Your task to perform on an android device: Search for the best rated 3d printer on Amazon. Image 0: 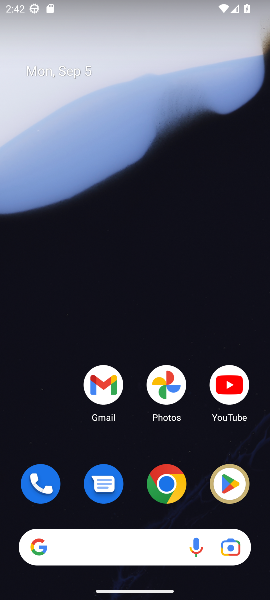
Step 0: click (173, 495)
Your task to perform on an android device: Search for the best rated 3d printer on Amazon. Image 1: 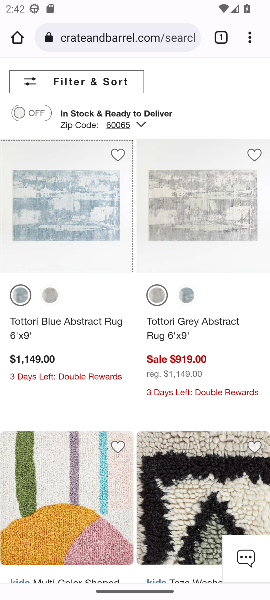
Step 1: click (163, 36)
Your task to perform on an android device: Search for the best rated 3d printer on Amazon. Image 2: 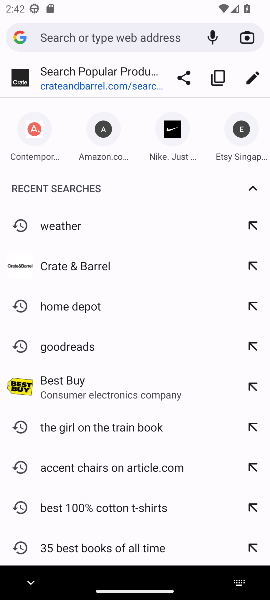
Step 2: type "Amazon"
Your task to perform on an android device: Search for the best rated 3d printer on Amazon. Image 3: 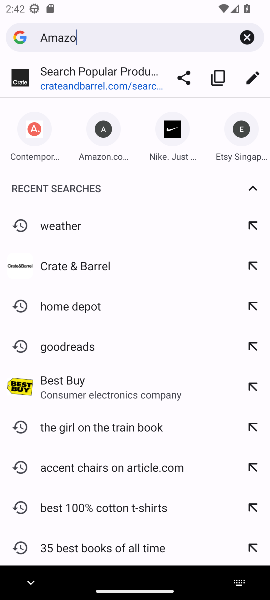
Step 3: press enter
Your task to perform on an android device: Search for the best rated 3d printer on Amazon. Image 4: 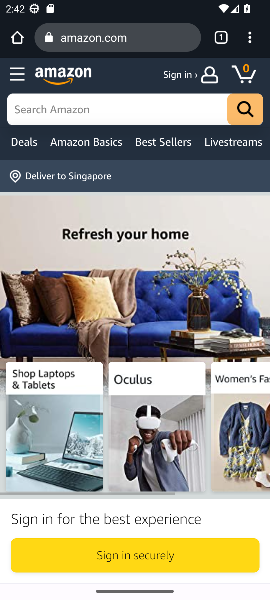
Step 4: click (146, 114)
Your task to perform on an android device: Search for the best rated 3d printer on Amazon. Image 5: 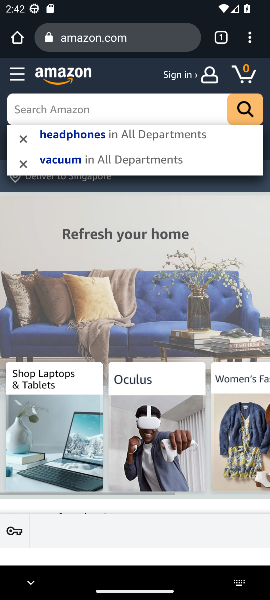
Step 5: press enter
Your task to perform on an android device: Search for the best rated 3d printer on Amazon. Image 6: 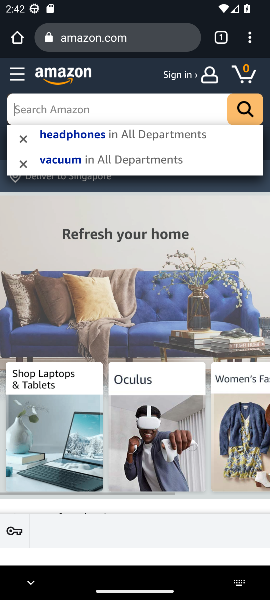
Step 6: type "3d printer"
Your task to perform on an android device: Search for the best rated 3d printer on Amazon. Image 7: 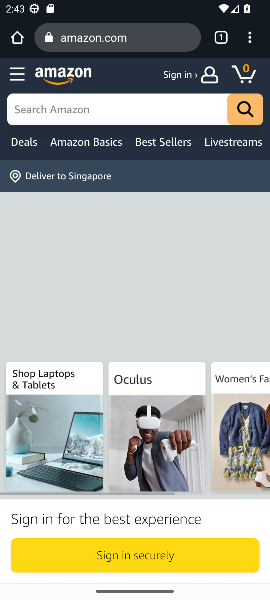
Step 7: drag from (105, 505) to (195, 208)
Your task to perform on an android device: Search for the best rated 3d printer on Amazon. Image 8: 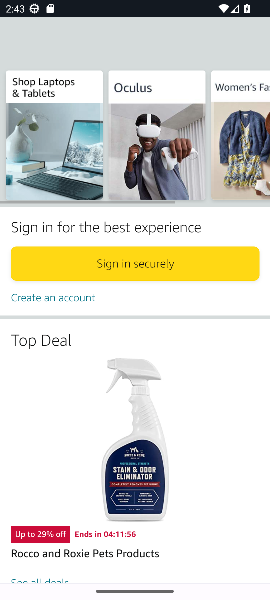
Step 8: drag from (140, 244) to (206, 489)
Your task to perform on an android device: Search for the best rated 3d printer on Amazon. Image 9: 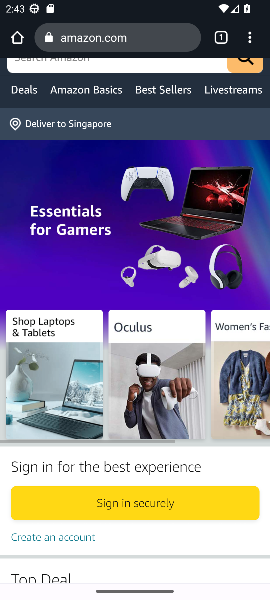
Step 9: drag from (155, 118) to (209, 379)
Your task to perform on an android device: Search for the best rated 3d printer on Amazon. Image 10: 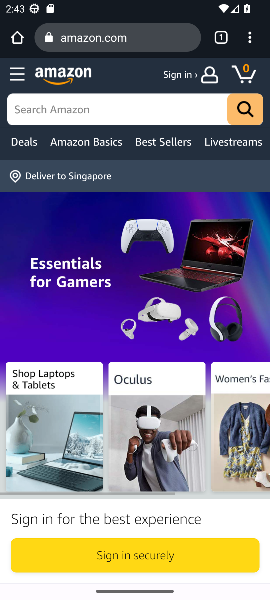
Step 10: click (124, 109)
Your task to perform on an android device: Search for the best rated 3d printer on Amazon. Image 11: 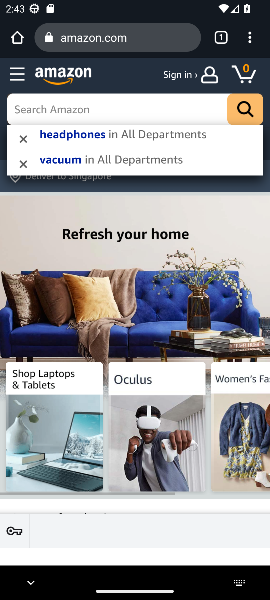
Step 11: type "3d printer"
Your task to perform on an android device: Search for the best rated 3d printer on Amazon. Image 12: 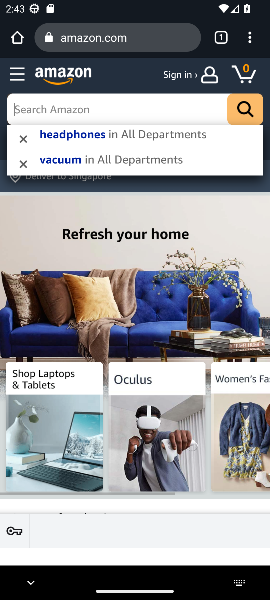
Step 12: press enter
Your task to perform on an android device: Search for the best rated 3d printer on Amazon. Image 13: 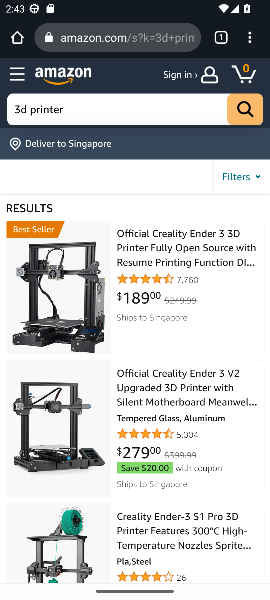
Step 13: task complete